Your task to perform on an android device: Open Chrome and go to settings Image 0: 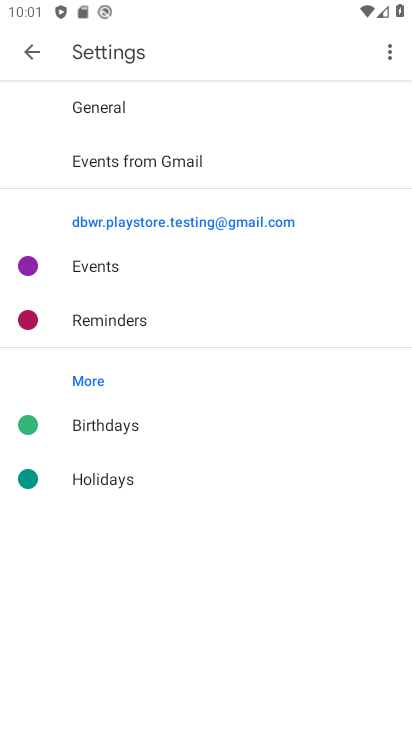
Step 0: press home button
Your task to perform on an android device: Open Chrome and go to settings Image 1: 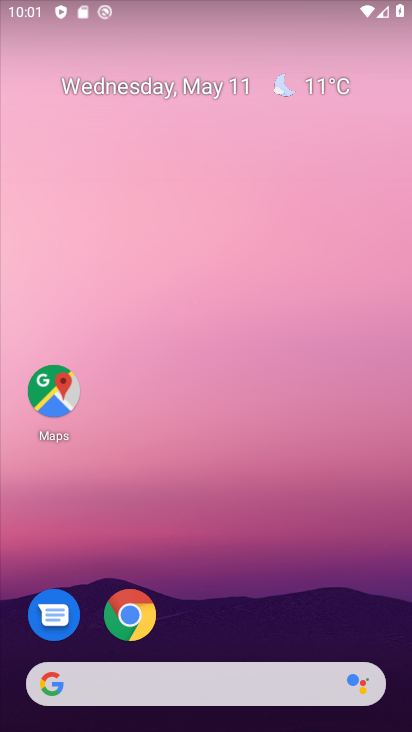
Step 1: drag from (218, 627) to (231, 293)
Your task to perform on an android device: Open Chrome and go to settings Image 2: 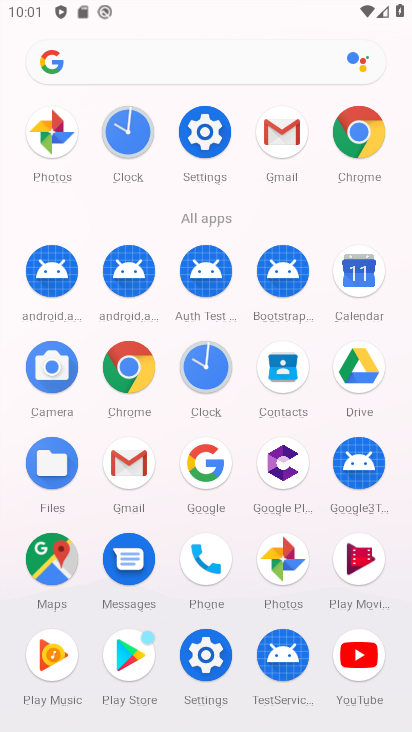
Step 2: click (361, 130)
Your task to perform on an android device: Open Chrome and go to settings Image 3: 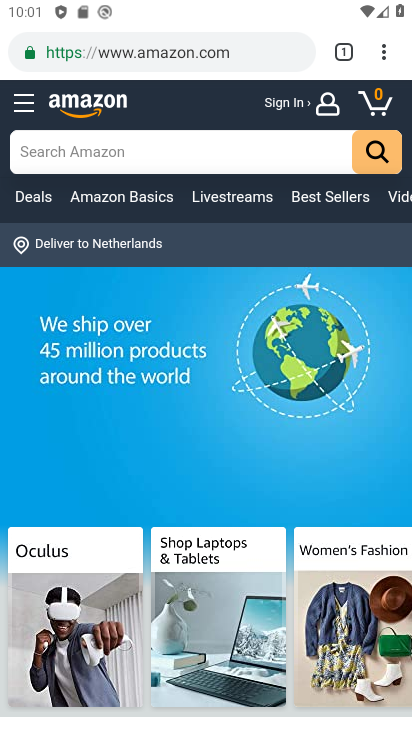
Step 3: click (388, 47)
Your task to perform on an android device: Open Chrome and go to settings Image 4: 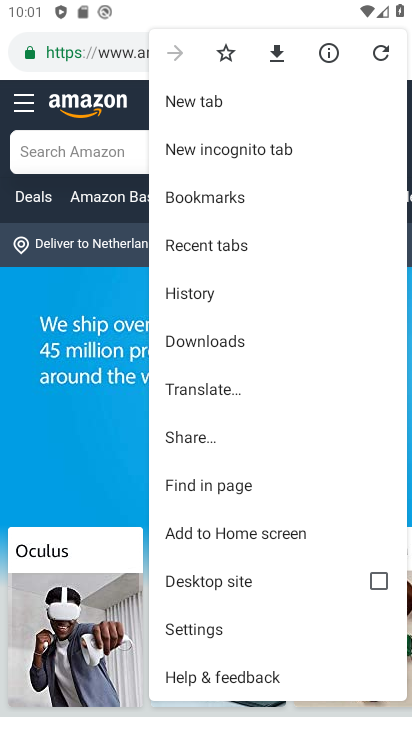
Step 4: click (210, 638)
Your task to perform on an android device: Open Chrome and go to settings Image 5: 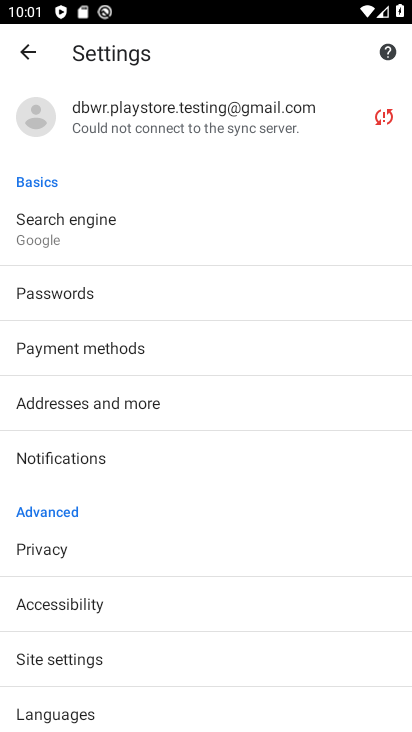
Step 5: task complete